Your task to perform on an android device: Go to location settings Image 0: 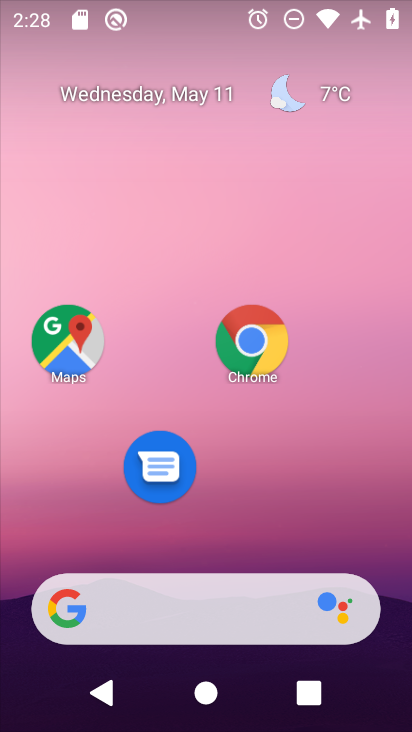
Step 0: drag from (141, 619) to (238, 123)
Your task to perform on an android device: Go to location settings Image 1: 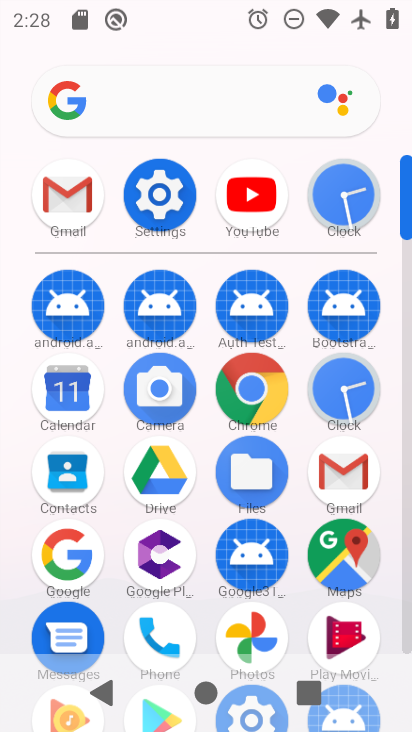
Step 1: click (156, 211)
Your task to perform on an android device: Go to location settings Image 2: 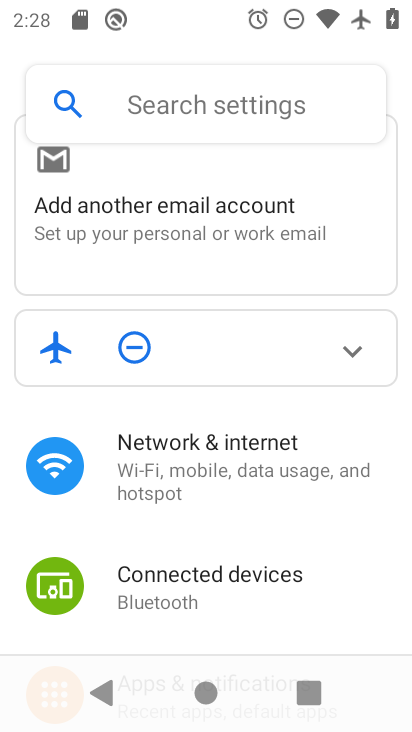
Step 2: drag from (184, 618) to (292, 102)
Your task to perform on an android device: Go to location settings Image 3: 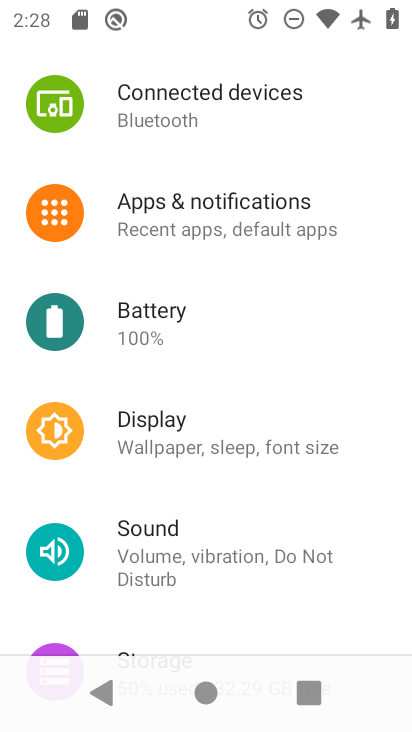
Step 3: drag from (165, 582) to (332, 67)
Your task to perform on an android device: Go to location settings Image 4: 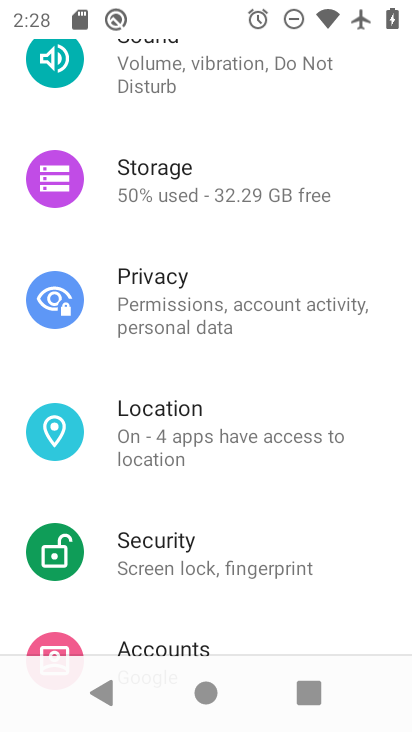
Step 4: click (192, 434)
Your task to perform on an android device: Go to location settings Image 5: 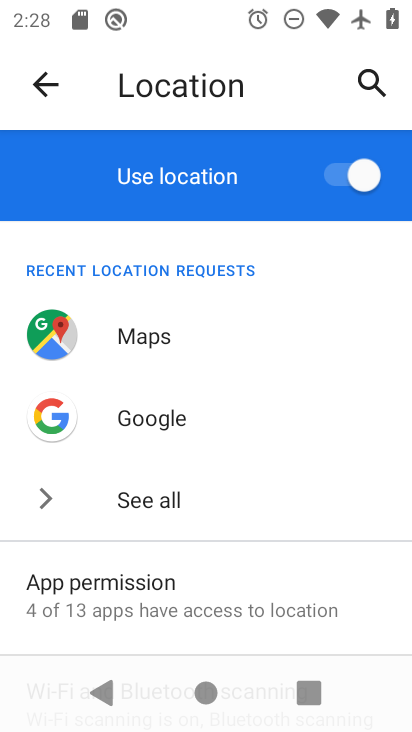
Step 5: task complete